Your task to perform on an android device: Open Wikipedia Image 0: 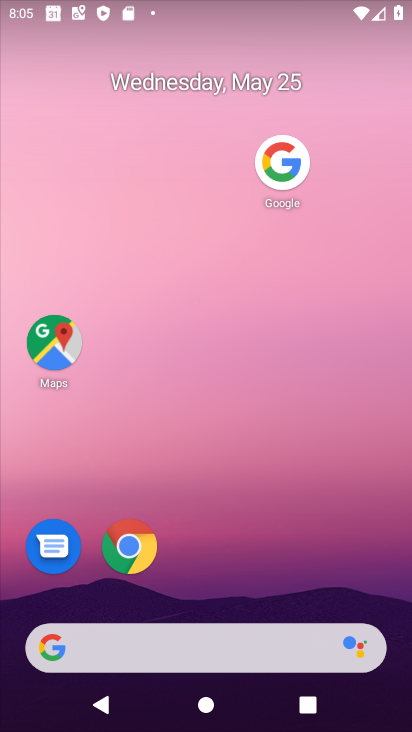
Step 0: press home button
Your task to perform on an android device: Open Wikipedia Image 1: 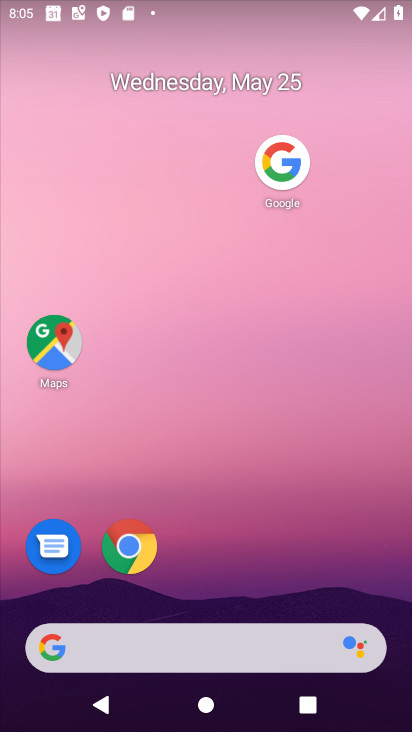
Step 1: click (129, 568)
Your task to perform on an android device: Open Wikipedia Image 2: 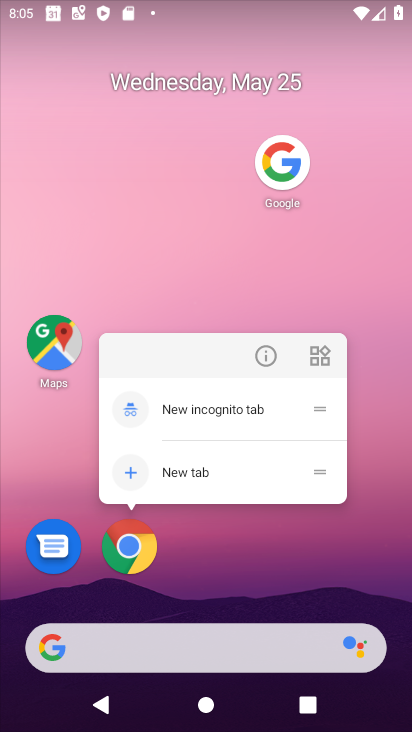
Step 2: click (129, 556)
Your task to perform on an android device: Open Wikipedia Image 3: 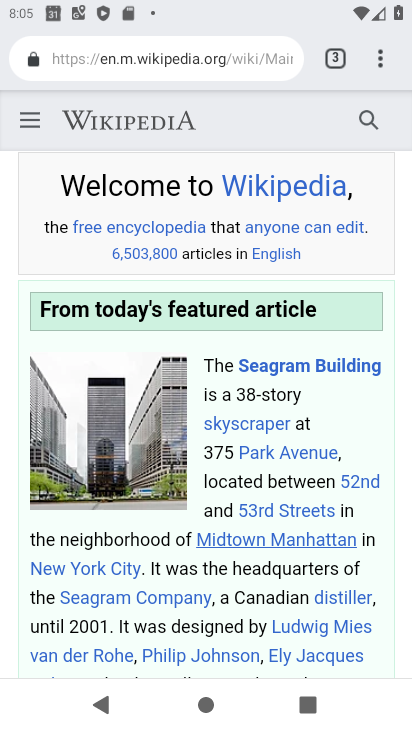
Step 3: task complete